Your task to perform on an android device: turn notification dots on Image 0: 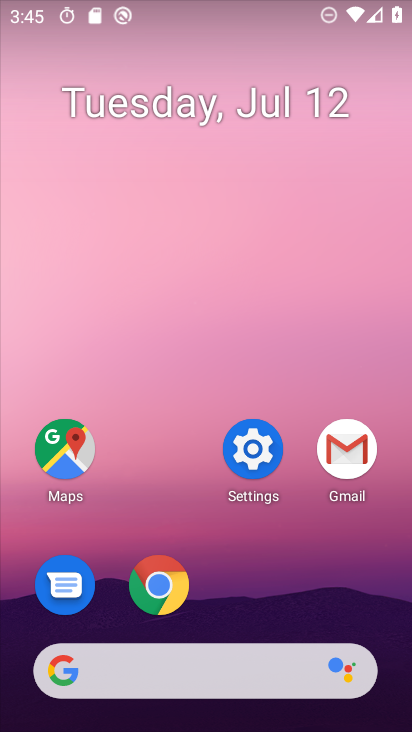
Step 0: click (218, 249)
Your task to perform on an android device: turn notification dots on Image 1: 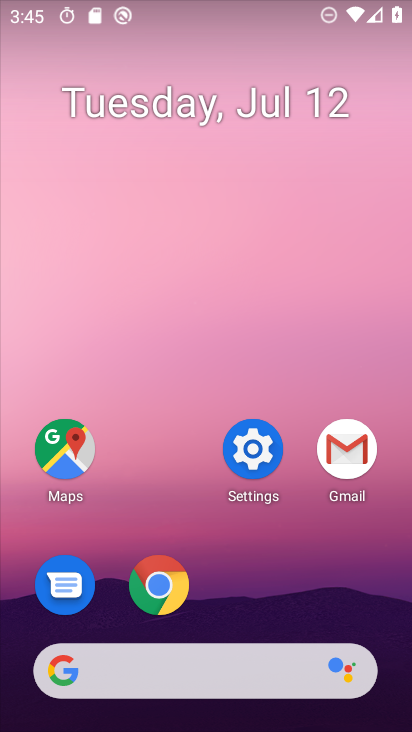
Step 1: click (256, 455)
Your task to perform on an android device: turn notification dots on Image 2: 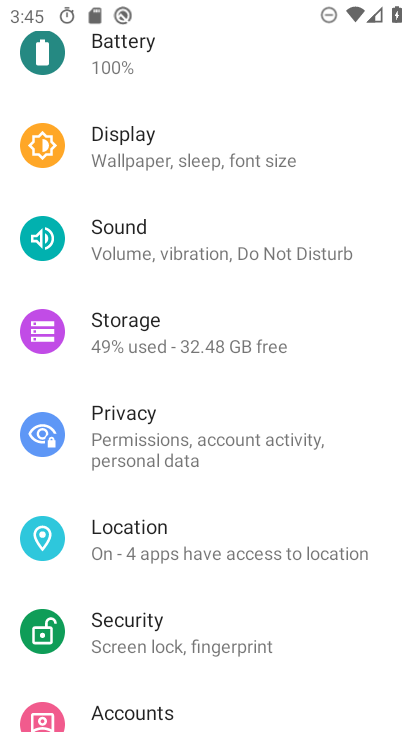
Step 2: drag from (227, 94) to (252, 575)
Your task to perform on an android device: turn notification dots on Image 3: 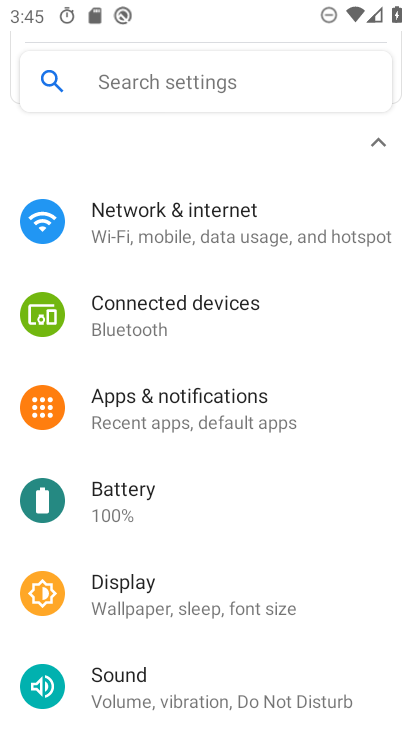
Step 3: click (189, 408)
Your task to perform on an android device: turn notification dots on Image 4: 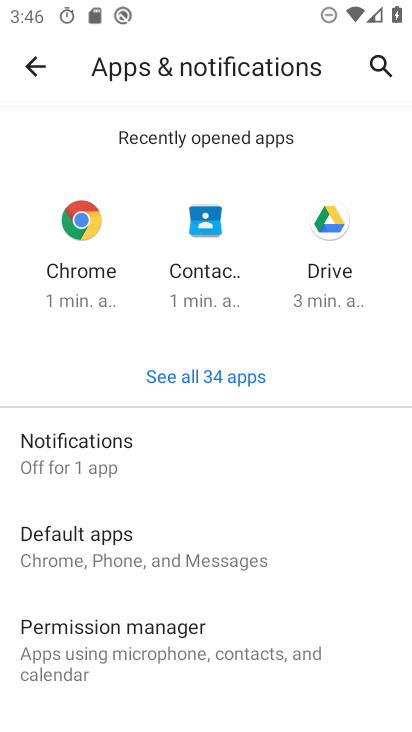
Step 4: drag from (199, 649) to (202, 316)
Your task to perform on an android device: turn notification dots on Image 5: 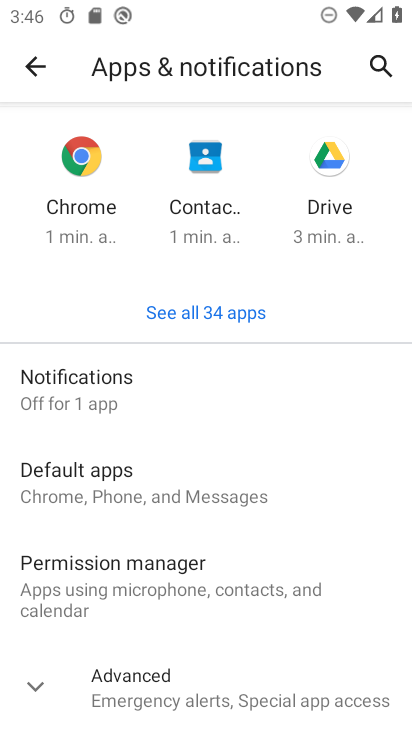
Step 5: click (102, 387)
Your task to perform on an android device: turn notification dots on Image 6: 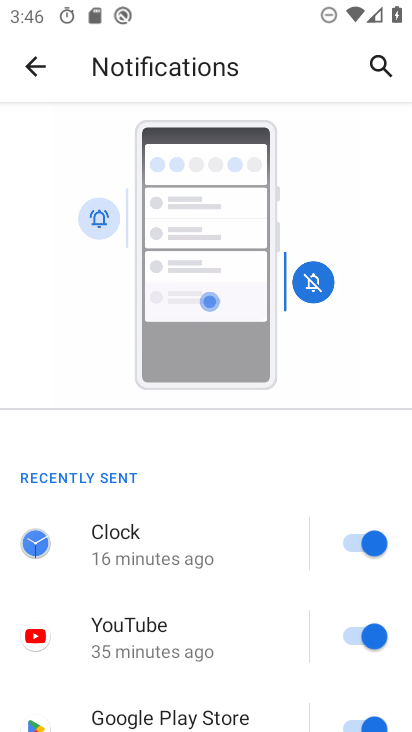
Step 6: drag from (276, 661) to (235, 184)
Your task to perform on an android device: turn notification dots on Image 7: 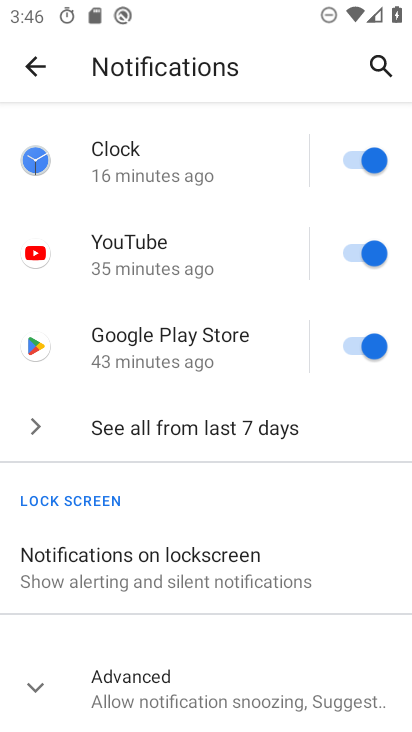
Step 7: drag from (268, 650) to (244, 312)
Your task to perform on an android device: turn notification dots on Image 8: 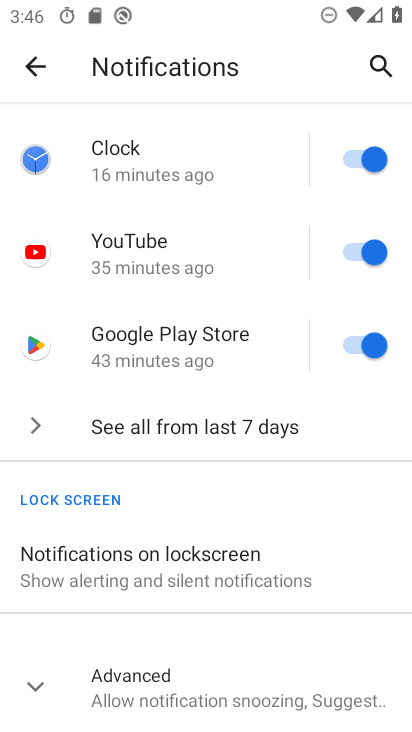
Step 8: click (50, 685)
Your task to perform on an android device: turn notification dots on Image 9: 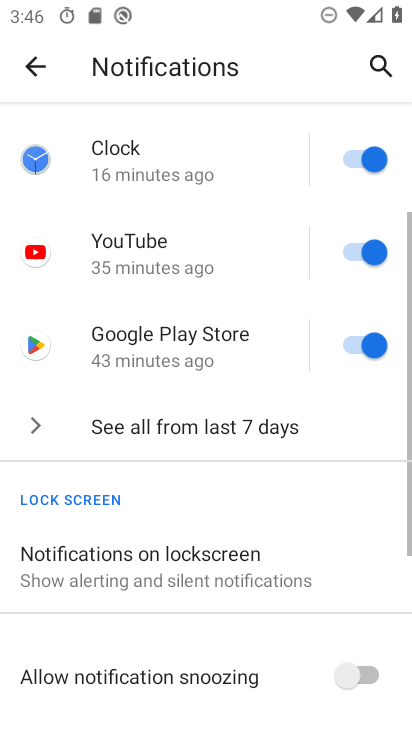
Step 9: task complete